Your task to perform on an android device: turn off data saver in the chrome app Image 0: 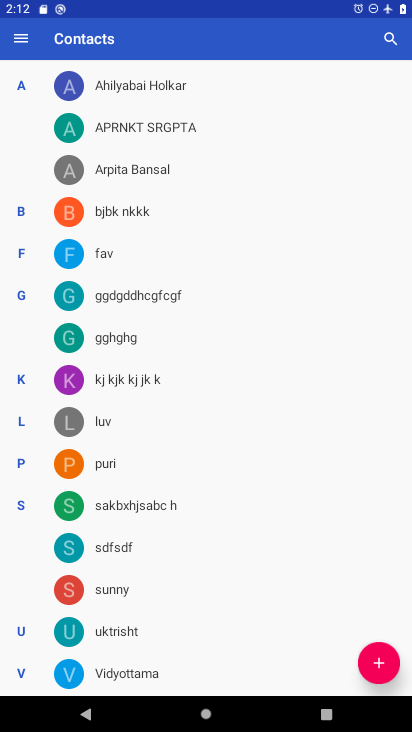
Step 0: press home button
Your task to perform on an android device: turn off data saver in the chrome app Image 1: 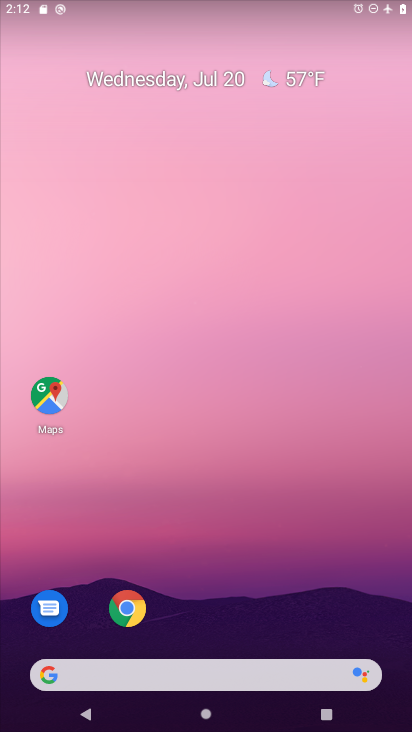
Step 1: click (110, 611)
Your task to perform on an android device: turn off data saver in the chrome app Image 2: 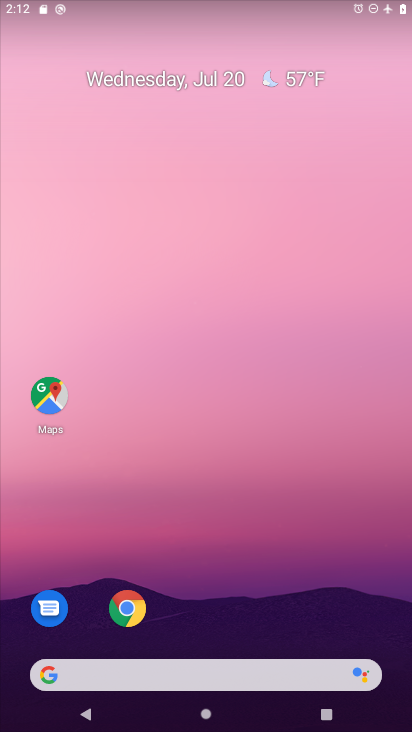
Step 2: click (110, 611)
Your task to perform on an android device: turn off data saver in the chrome app Image 3: 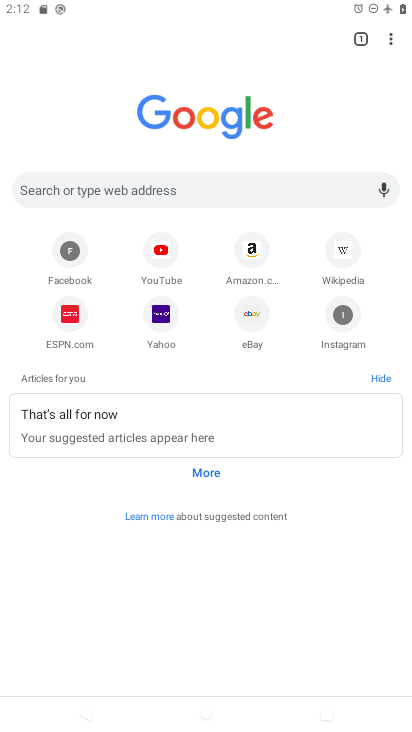
Step 3: click (393, 33)
Your task to perform on an android device: turn off data saver in the chrome app Image 4: 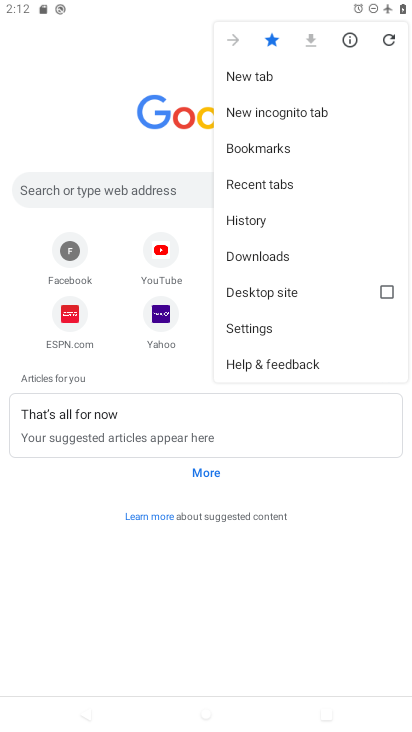
Step 4: click (291, 333)
Your task to perform on an android device: turn off data saver in the chrome app Image 5: 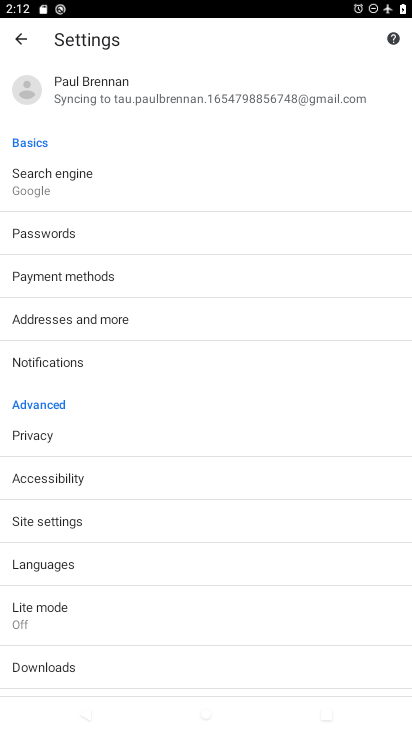
Step 5: click (78, 625)
Your task to perform on an android device: turn off data saver in the chrome app Image 6: 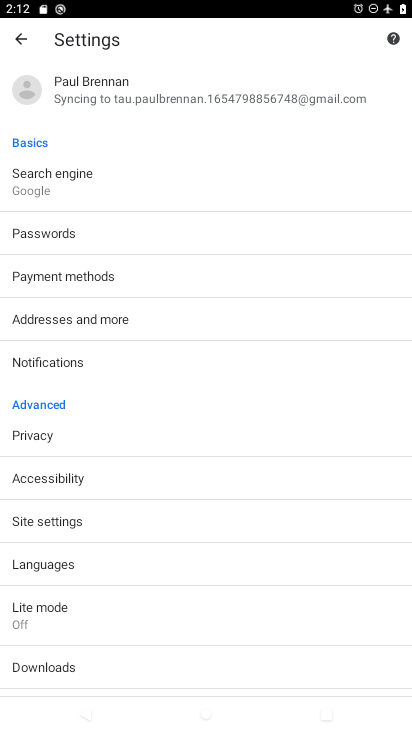
Step 6: click (78, 625)
Your task to perform on an android device: turn off data saver in the chrome app Image 7: 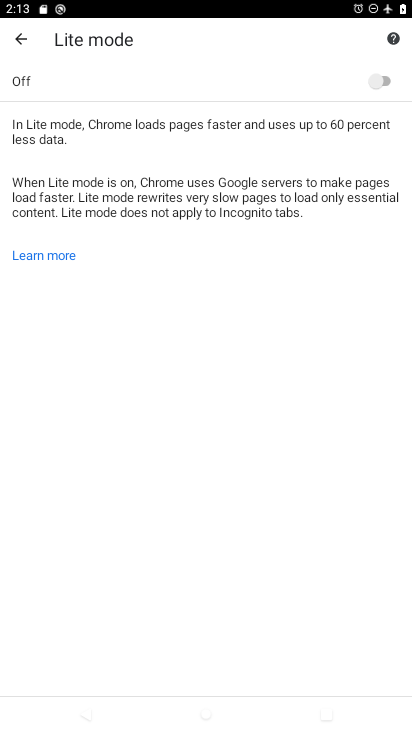
Step 7: task complete